Your task to perform on an android device: change keyboard looks Image 0: 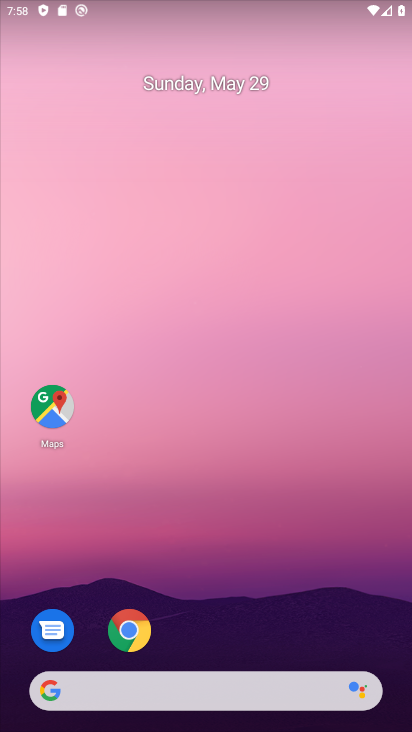
Step 0: drag from (221, 670) to (303, 32)
Your task to perform on an android device: change keyboard looks Image 1: 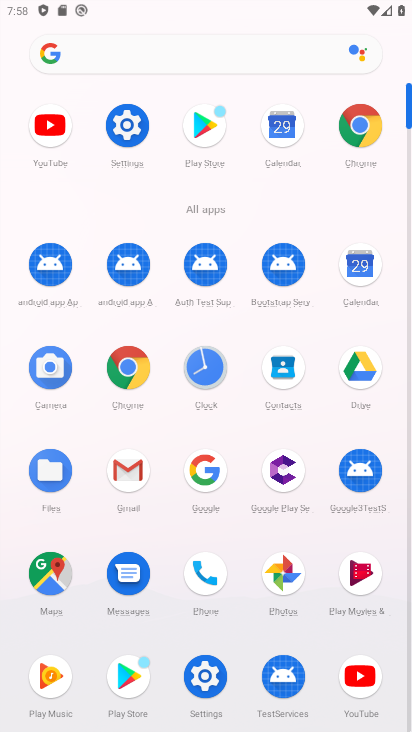
Step 1: click (202, 662)
Your task to perform on an android device: change keyboard looks Image 2: 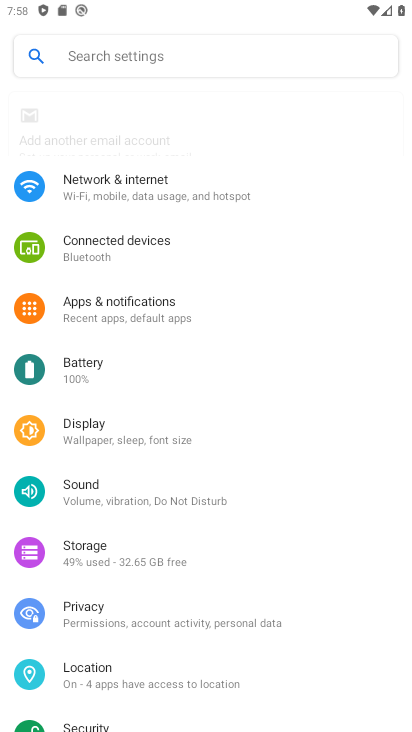
Step 2: drag from (201, 663) to (171, 4)
Your task to perform on an android device: change keyboard looks Image 3: 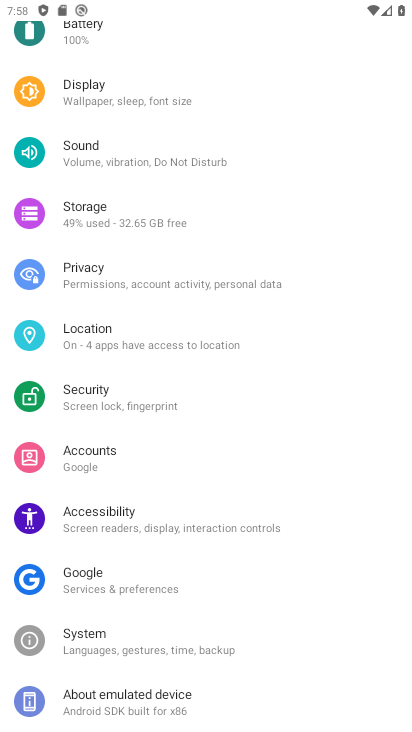
Step 3: click (78, 646)
Your task to perform on an android device: change keyboard looks Image 4: 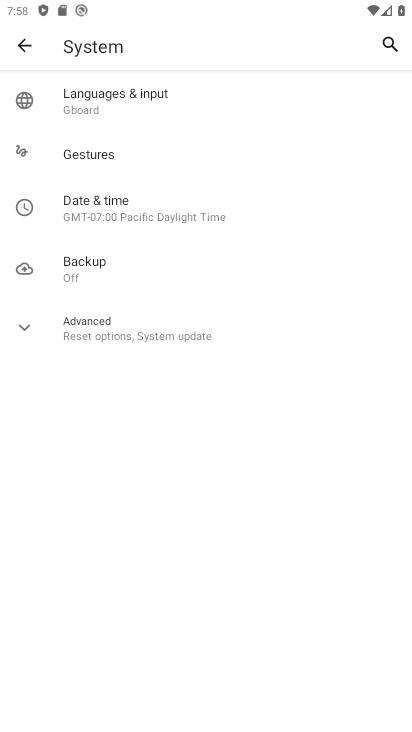
Step 4: click (49, 91)
Your task to perform on an android device: change keyboard looks Image 5: 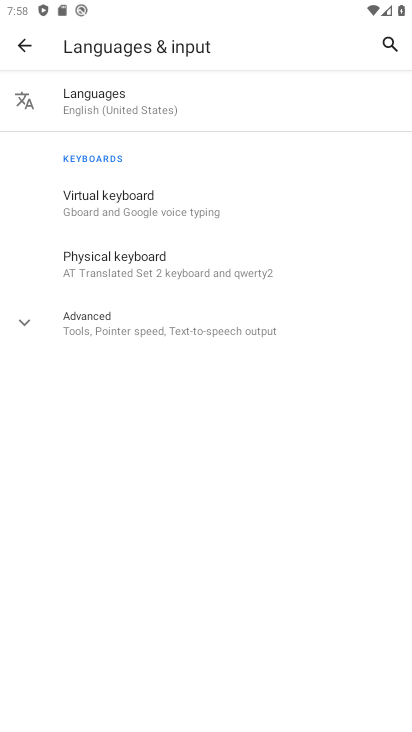
Step 5: click (109, 203)
Your task to perform on an android device: change keyboard looks Image 6: 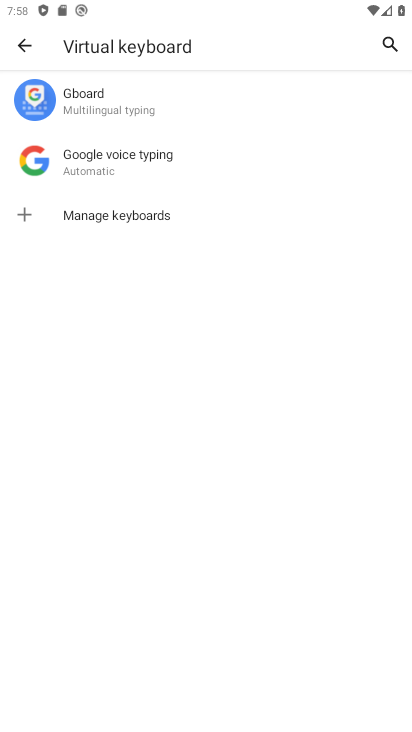
Step 6: click (104, 101)
Your task to perform on an android device: change keyboard looks Image 7: 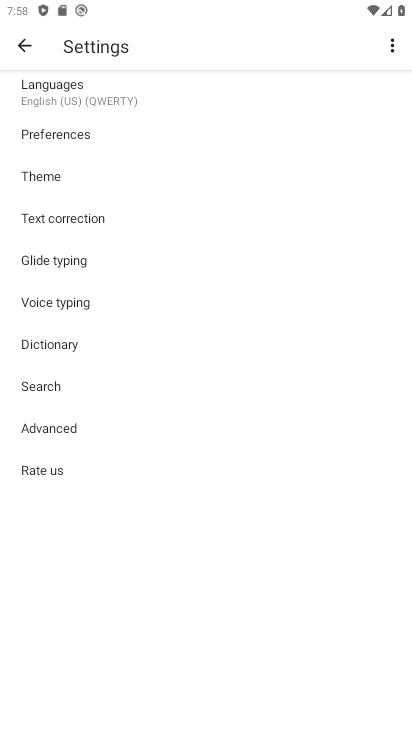
Step 7: click (53, 186)
Your task to perform on an android device: change keyboard looks Image 8: 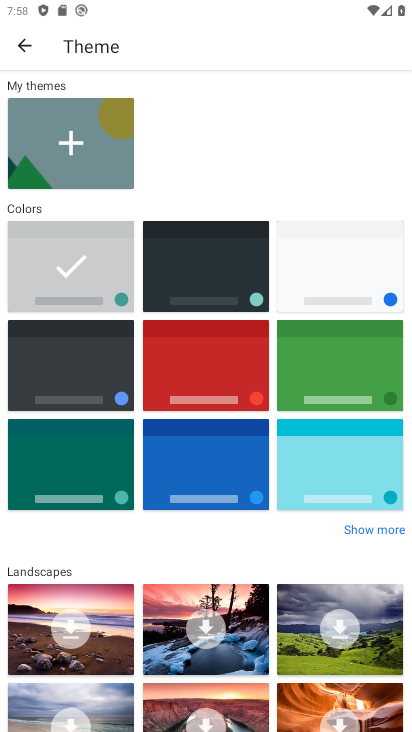
Step 8: click (52, 359)
Your task to perform on an android device: change keyboard looks Image 9: 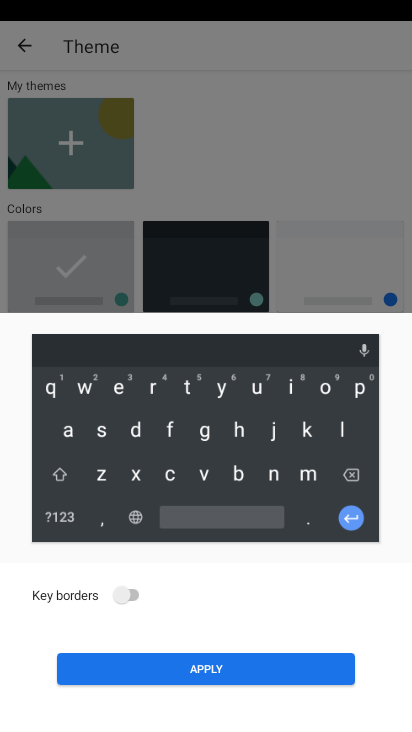
Step 9: click (209, 674)
Your task to perform on an android device: change keyboard looks Image 10: 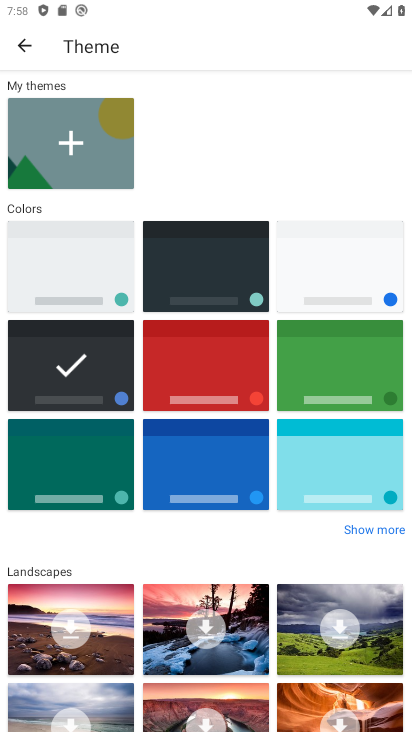
Step 10: task complete